Your task to perform on an android device: turn notification dots on Image 0: 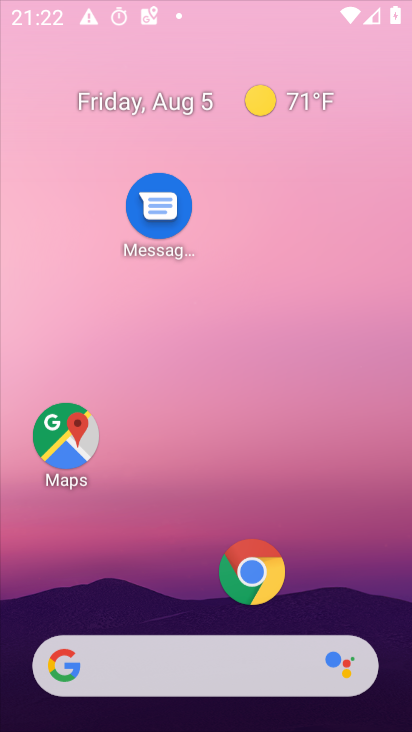
Step 0: press home button
Your task to perform on an android device: turn notification dots on Image 1: 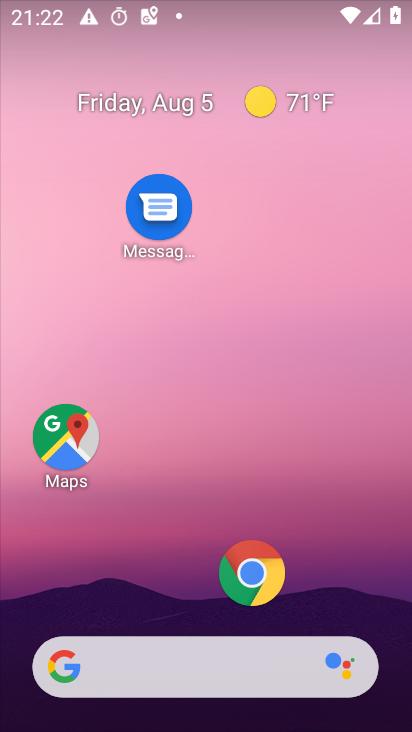
Step 1: drag from (204, 613) to (244, 73)
Your task to perform on an android device: turn notification dots on Image 2: 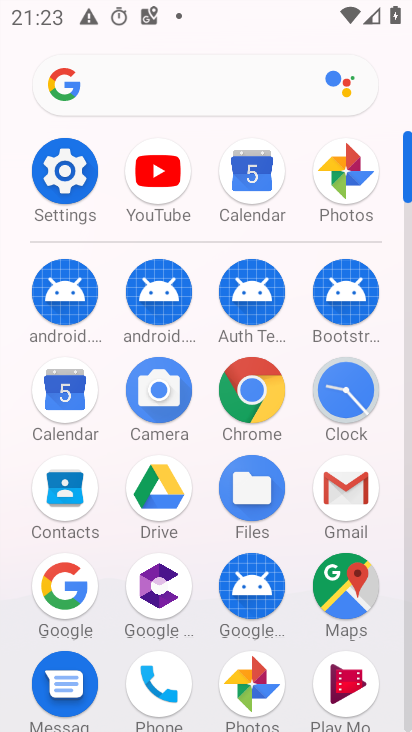
Step 2: click (61, 165)
Your task to perform on an android device: turn notification dots on Image 3: 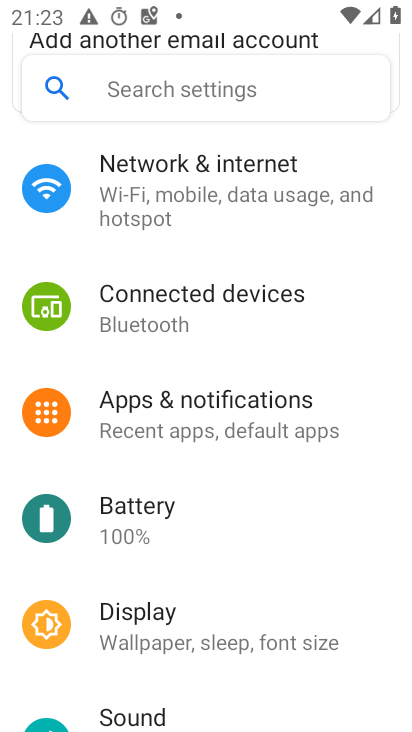
Step 3: click (330, 408)
Your task to perform on an android device: turn notification dots on Image 4: 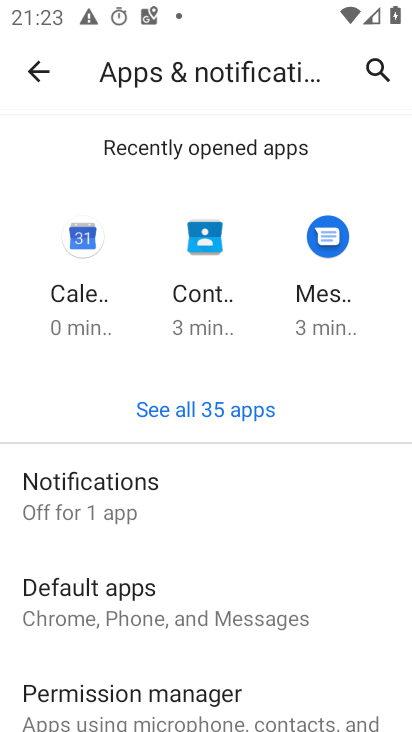
Step 4: click (182, 497)
Your task to perform on an android device: turn notification dots on Image 5: 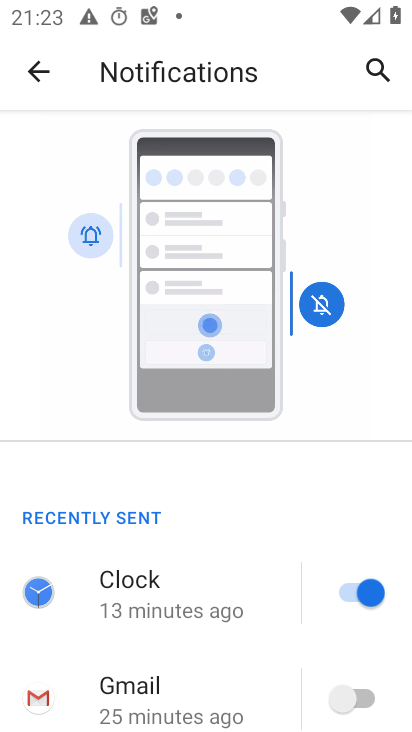
Step 5: drag from (265, 661) to (278, 210)
Your task to perform on an android device: turn notification dots on Image 6: 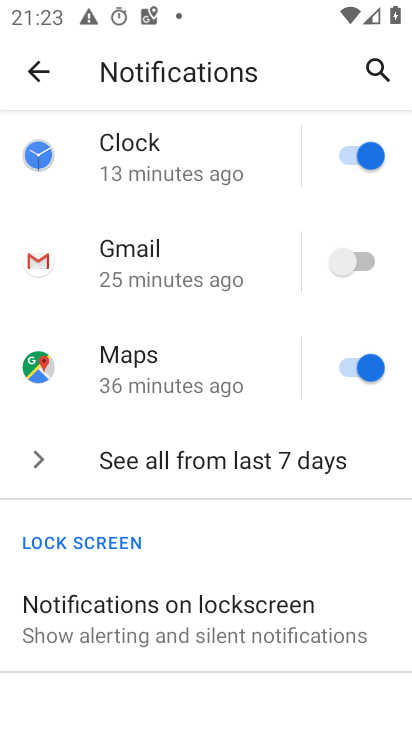
Step 6: drag from (240, 665) to (261, 249)
Your task to perform on an android device: turn notification dots on Image 7: 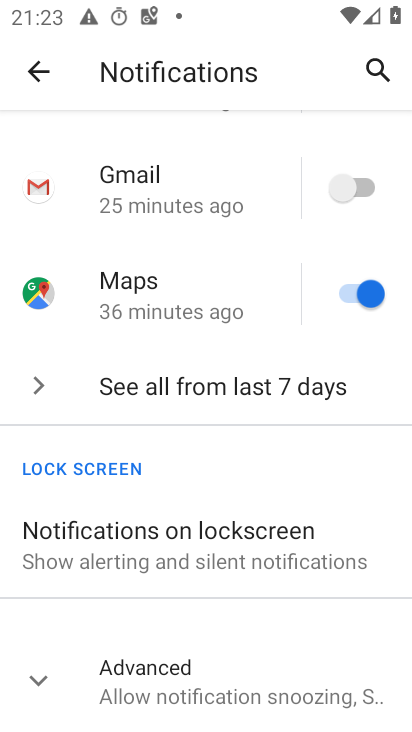
Step 7: click (34, 674)
Your task to perform on an android device: turn notification dots on Image 8: 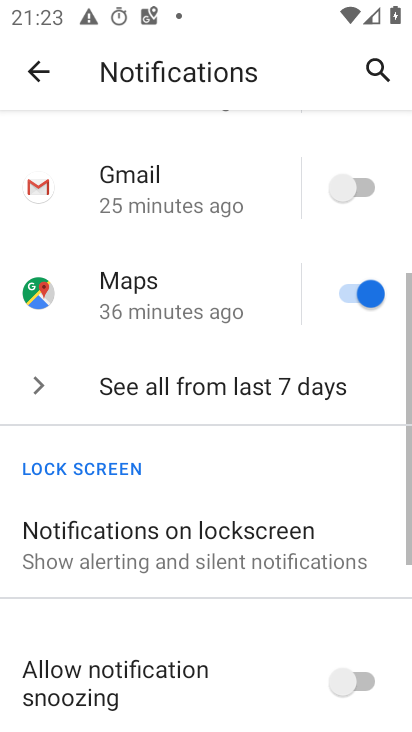
Step 8: task complete